Your task to perform on an android device: toggle show notifications on the lock screen Image 0: 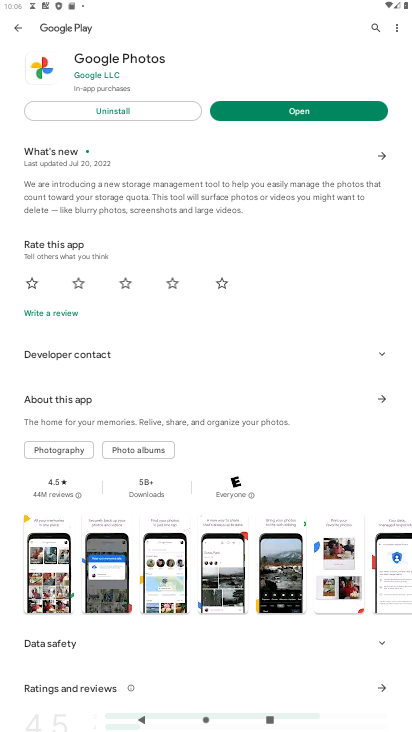
Step 0: press home button
Your task to perform on an android device: toggle show notifications on the lock screen Image 1: 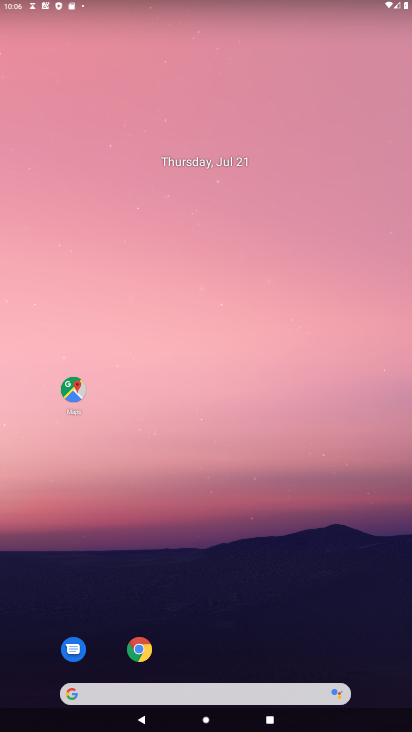
Step 1: drag from (271, 606) to (236, 5)
Your task to perform on an android device: toggle show notifications on the lock screen Image 2: 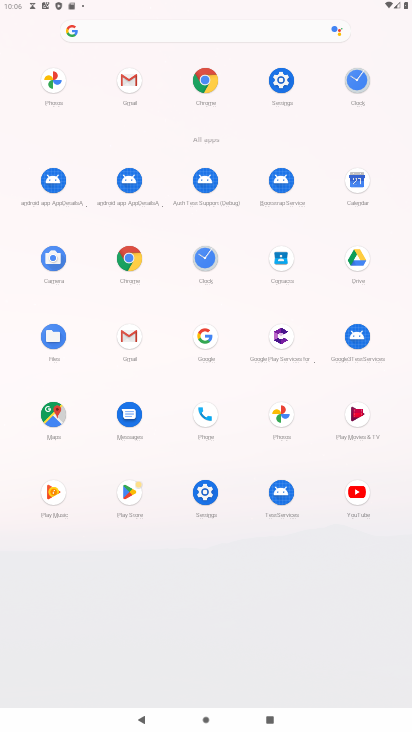
Step 2: click (200, 491)
Your task to perform on an android device: toggle show notifications on the lock screen Image 3: 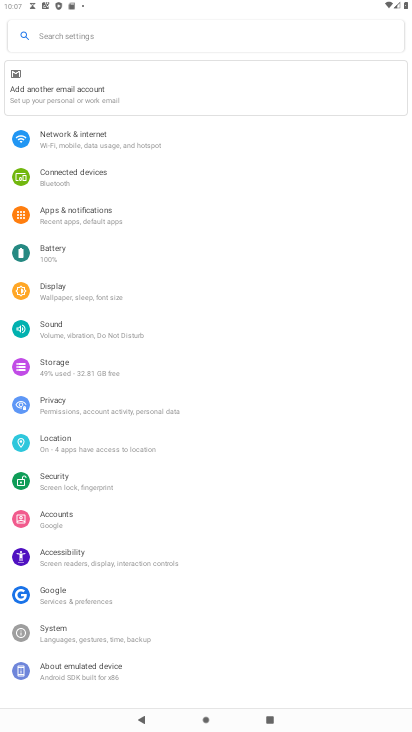
Step 3: click (130, 218)
Your task to perform on an android device: toggle show notifications on the lock screen Image 4: 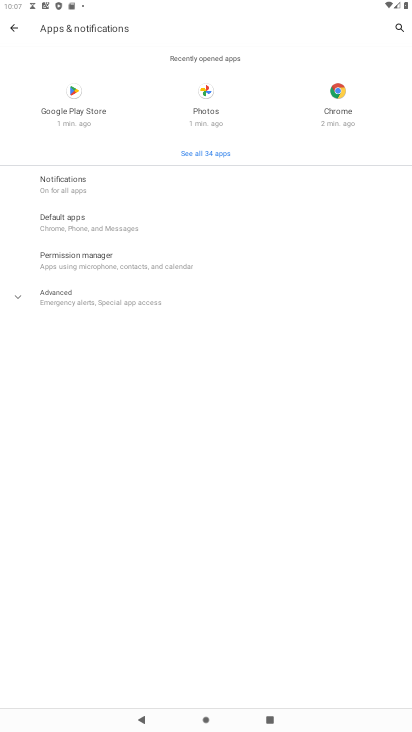
Step 4: click (109, 181)
Your task to perform on an android device: toggle show notifications on the lock screen Image 5: 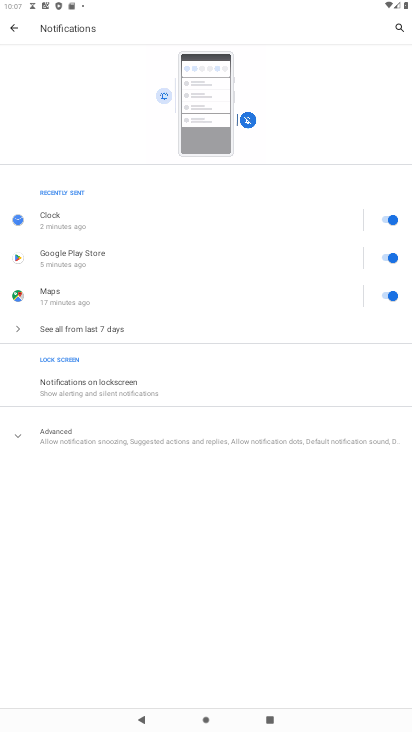
Step 5: click (184, 384)
Your task to perform on an android device: toggle show notifications on the lock screen Image 6: 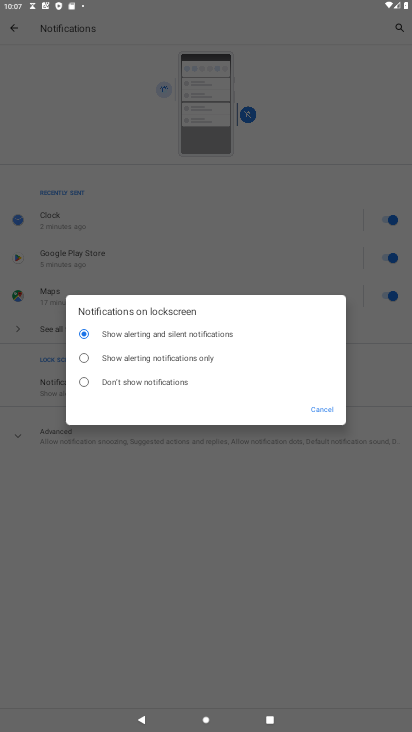
Step 6: click (144, 382)
Your task to perform on an android device: toggle show notifications on the lock screen Image 7: 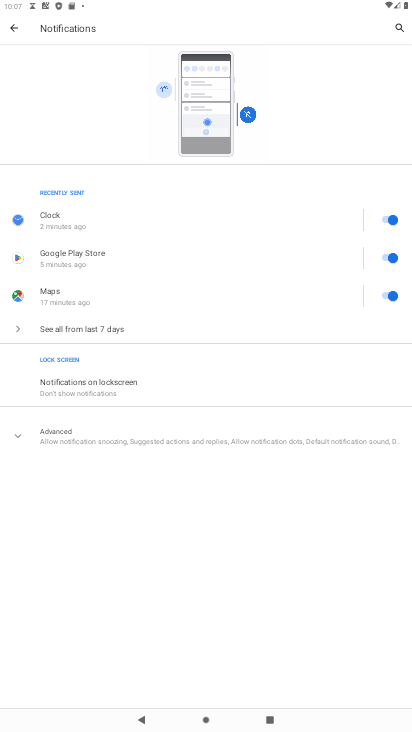
Step 7: task complete